Your task to perform on an android device: open app "Google Find My Device" (install if not already installed) Image 0: 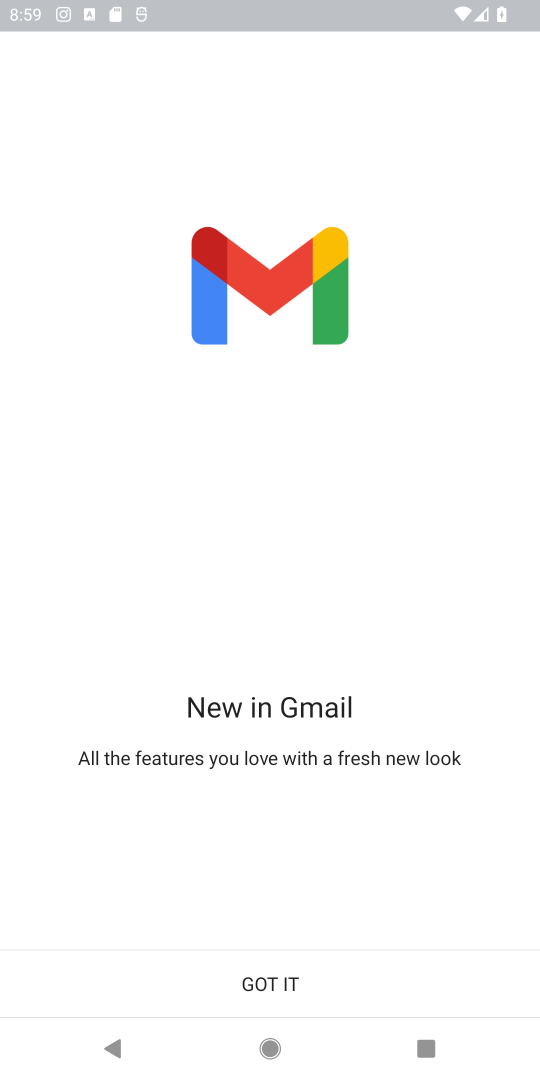
Step 0: press home button
Your task to perform on an android device: open app "Google Find My Device" (install if not already installed) Image 1: 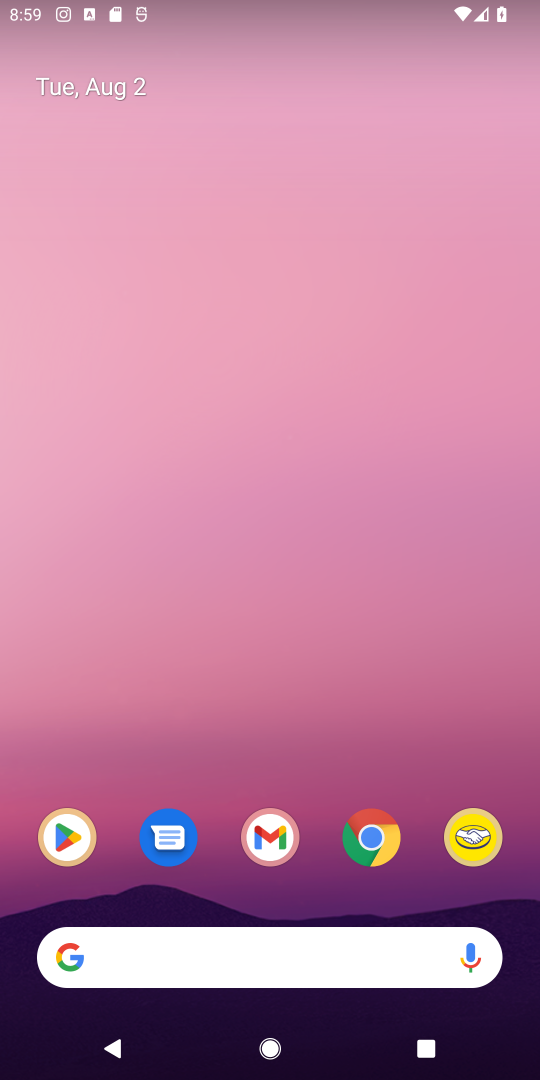
Step 1: click (59, 850)
Your task to perform on an android device: open app "Google Find My Device" (install if not already installed) Image 2: 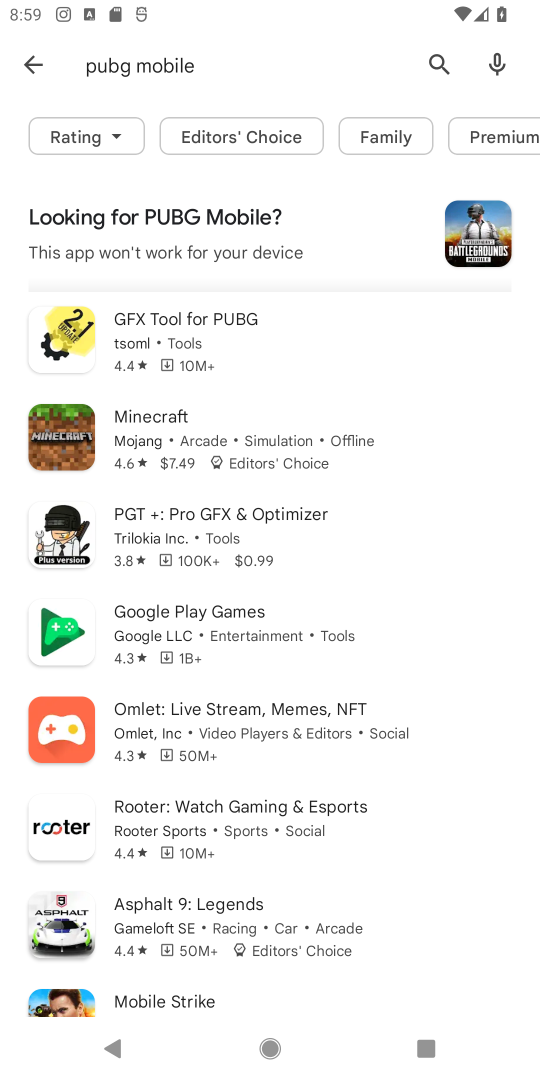
Step 2: click (443, 62)
Your task to perform on an android device: open app "Google Find My Device" (install if not already installed) Image 3: 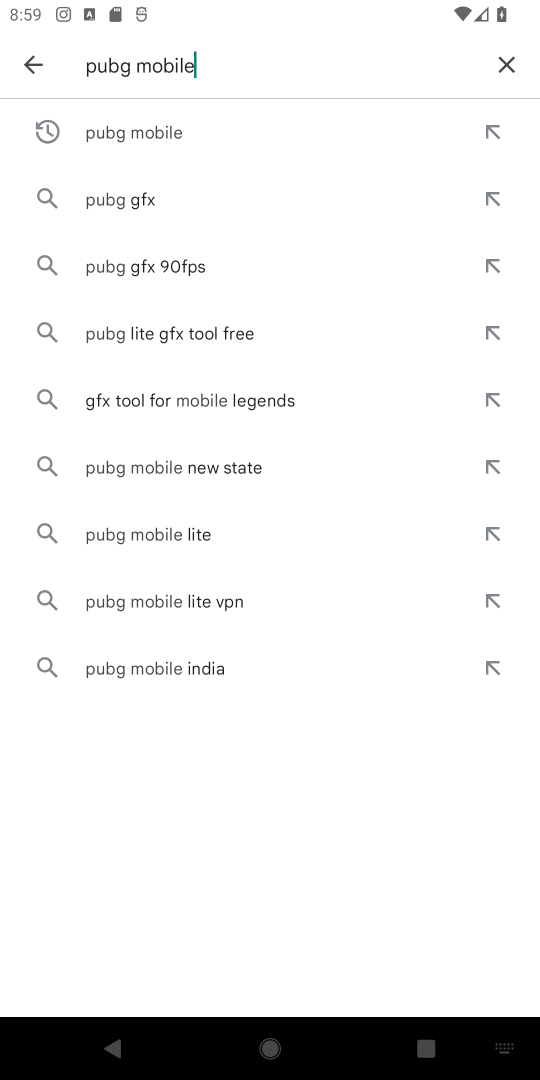
Step 3: click (502, 68)
Your task to perform on an android device: open app "Google Find My Device" (install if not already installed) Image 4: 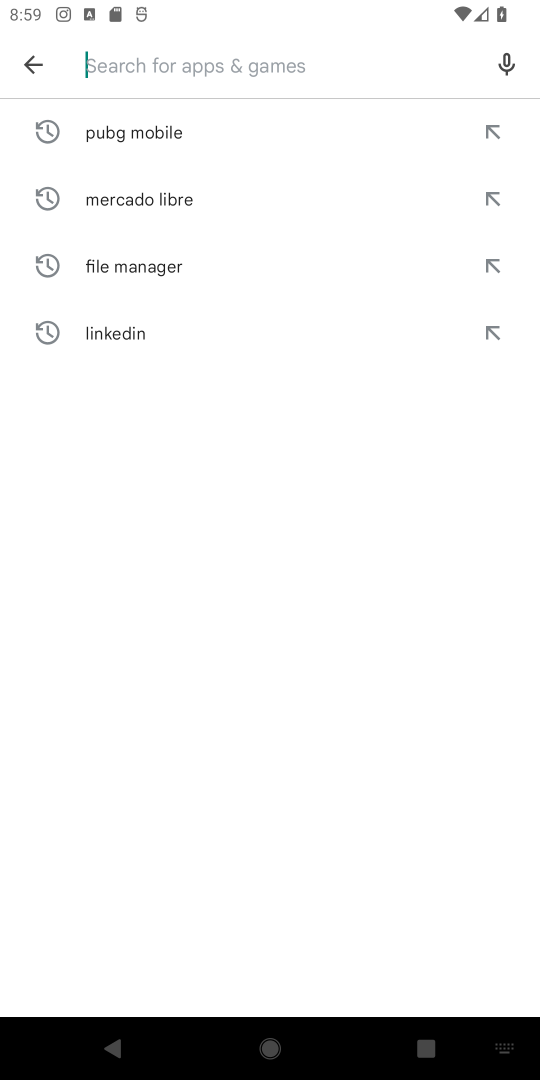
Step 4: type "Google Find My Device"
Your task to perform on an android device: open app "Google Find My Device" (install if not already installed) Image 5: 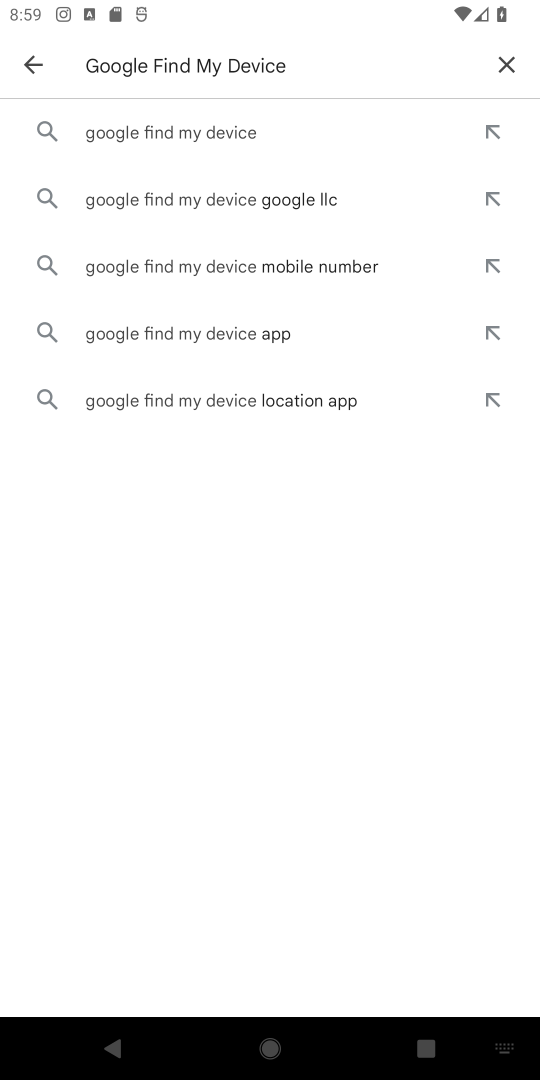
Step 5: click (169, 139)
Your task to perform on an android device: open app "Google Find My Device" (install if not already installed) Image 6: 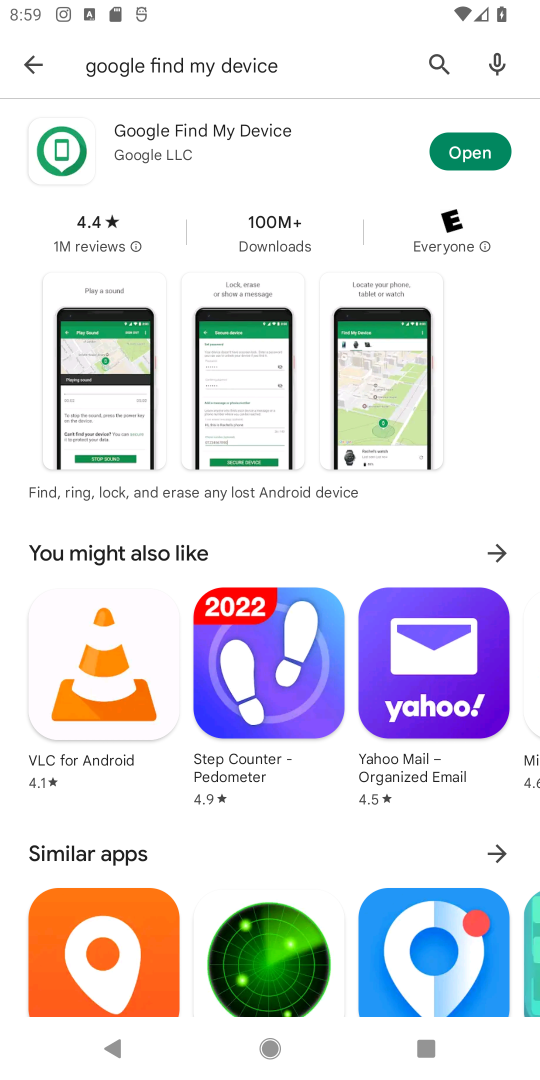
Step 6: click (457, 153)
Your task to perform on an android device: open app "Google Find My Device" (install if not already installed) Image 7: 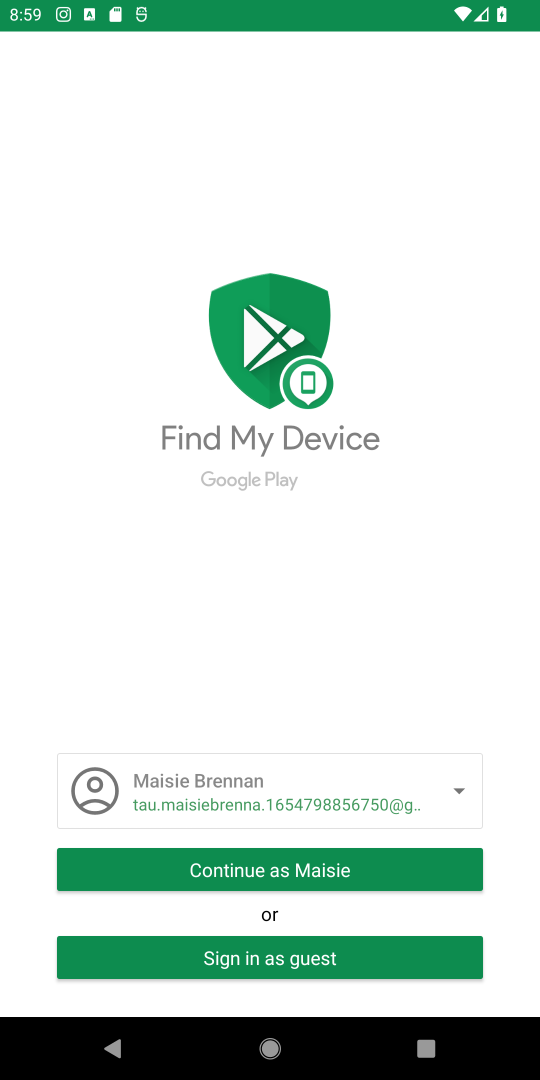
Step 7: task complete